Your task to perform on an android device: Go to ESPN.com Image 0: 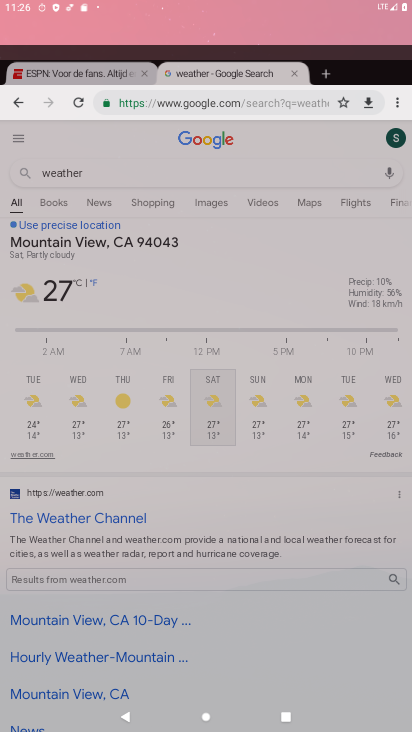
Step 0: press home button
Your task to perform on an android device: Go to ESPN.com Image 1: 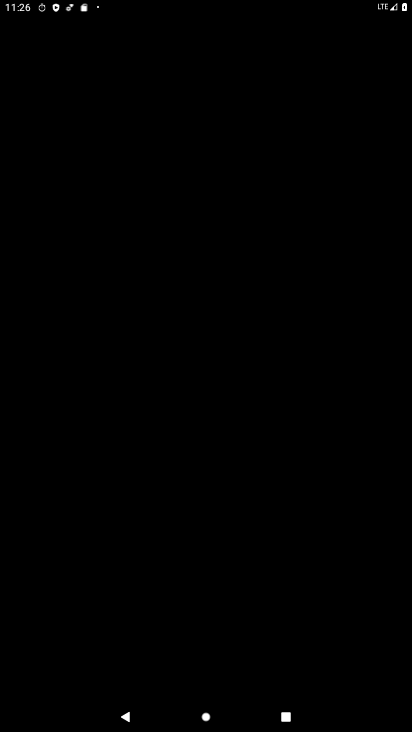
Step 1: press home button
Your task to perform on an android device: Go to ESPN.com Image 2: 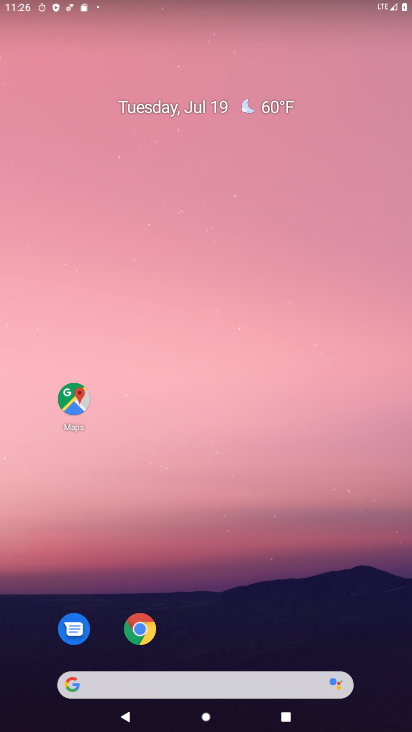
Step 2: drag from (247, 617) to (245, 117)
Your task to perform on an android device: Go to ESPN.com Image 3: 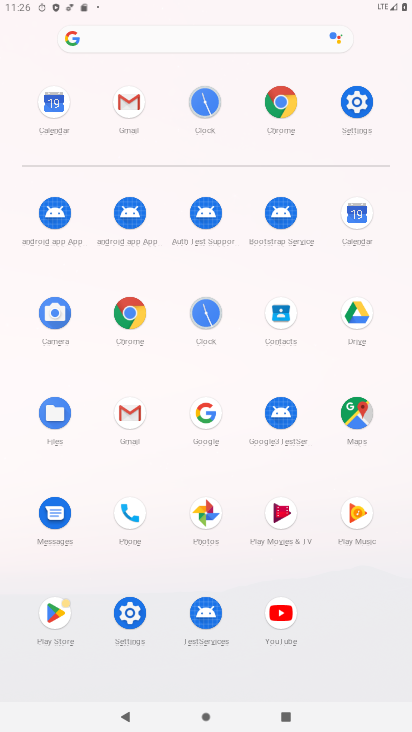
Step 3: click (280, 100)
Your task to perform on an android device: Go to ESPN.com Image 4: 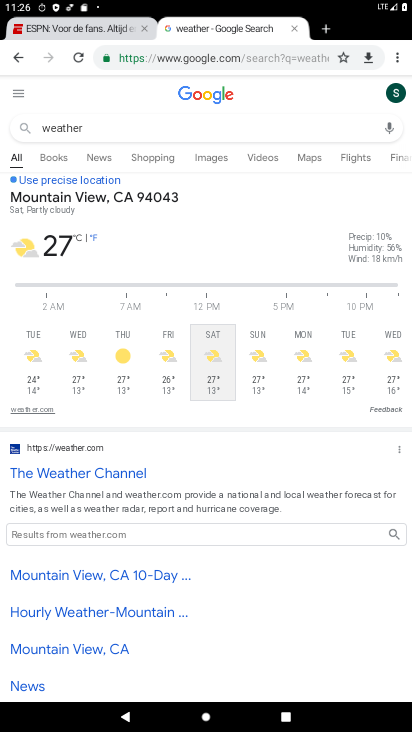
Step 4: click (266, 61)
Your task to perform on an android device: Go to ESPN.com Image 5: 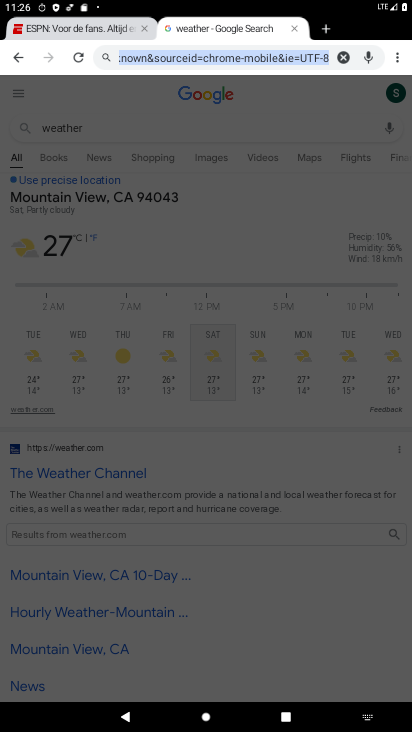
Step 5: type "espn.com"
Your task to perform on an android device: Go to ESPN.com Image 6: 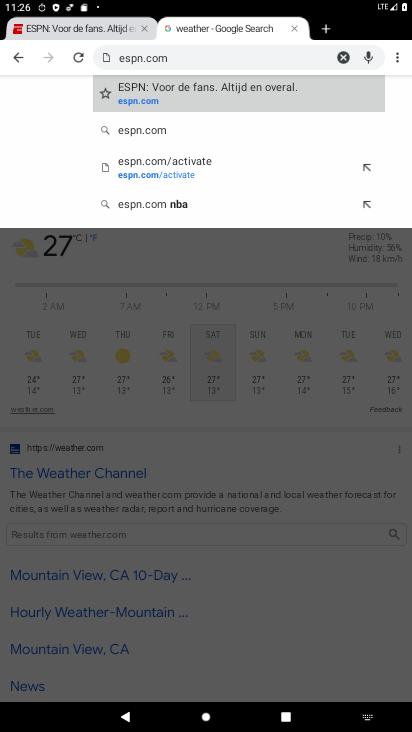
Step 6: click (132, 99)
Your task to perform on an android device: Go to ESPN.com Image 7: 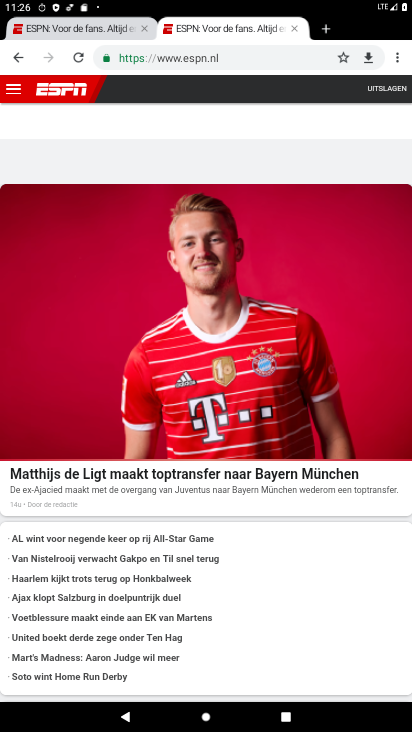
Step 7: task complete